Your task to perform on an android device: open app "PlayWell" (install if not already installed) Image 0: 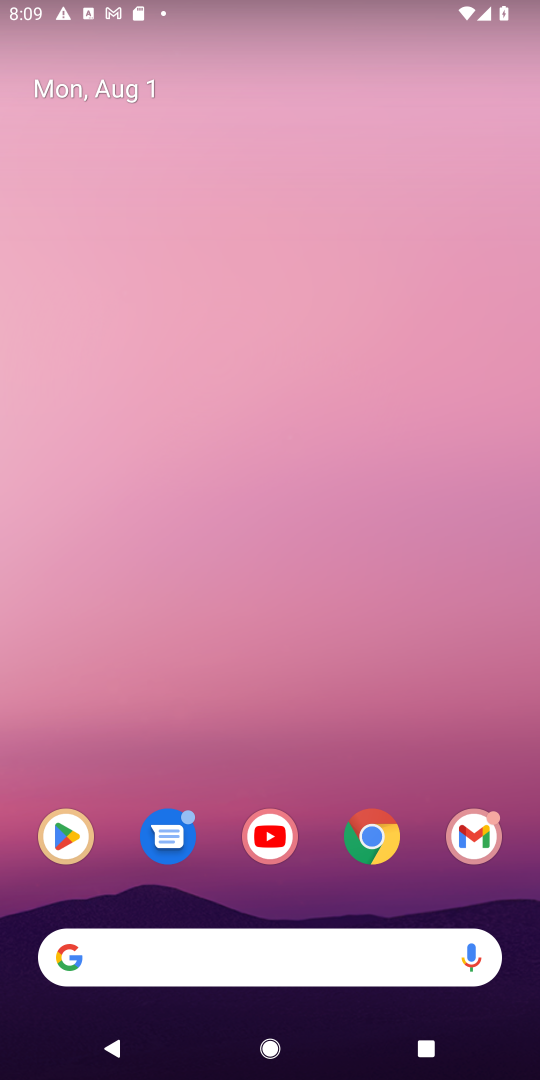
Step 0: press home button
Your task to perform on an android device: open app "PlayWell" (install if not already installed) Image 1: 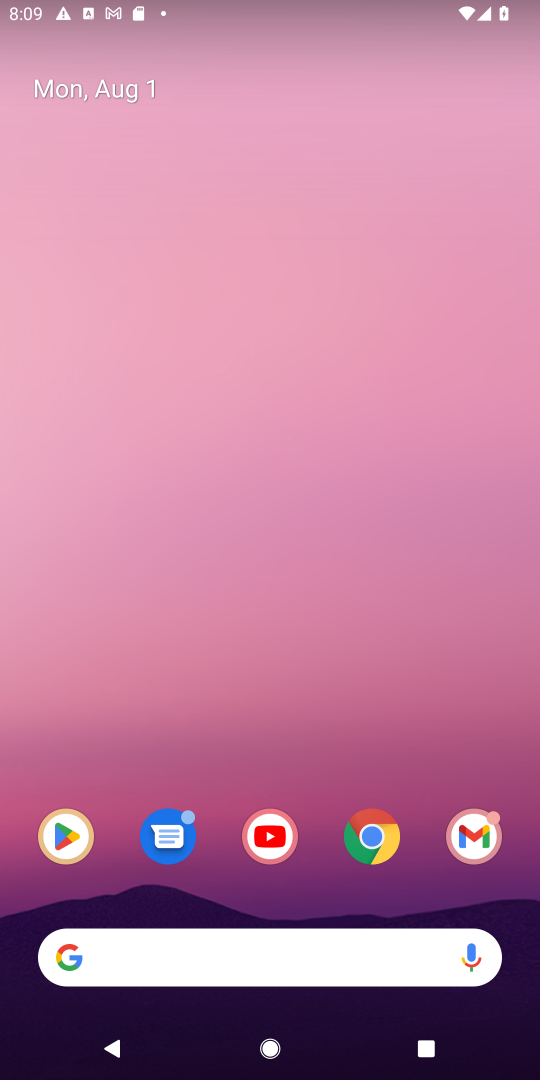
Step 1: click (71, 835)
Your task to perform on an android device: open app "PlayWell" (install if not already installed) Image 2: 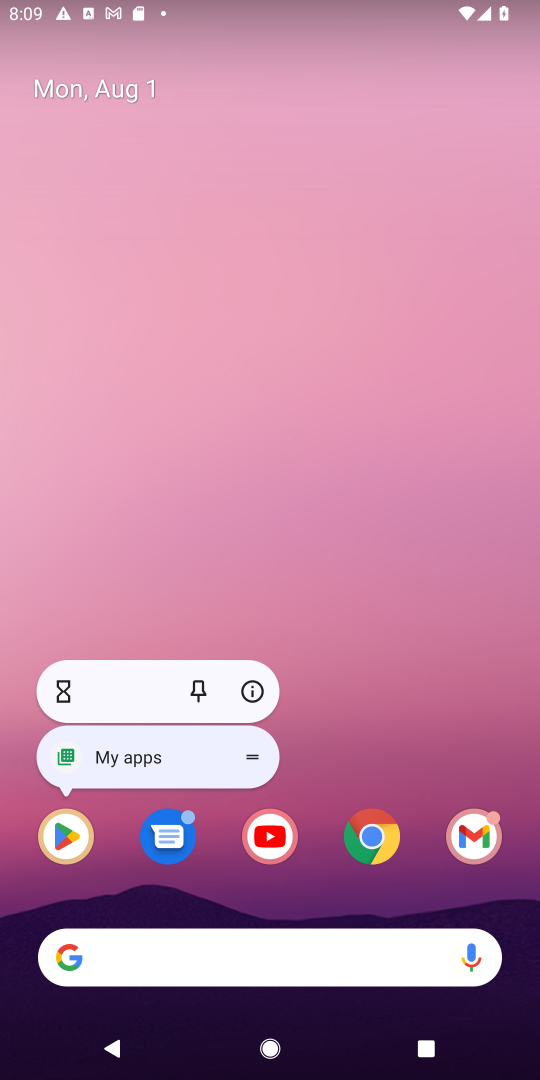
Step 2: click (67, 837)
Your task to perform on an android device: open app "PlayWell" (install if not already installed) Image 3: 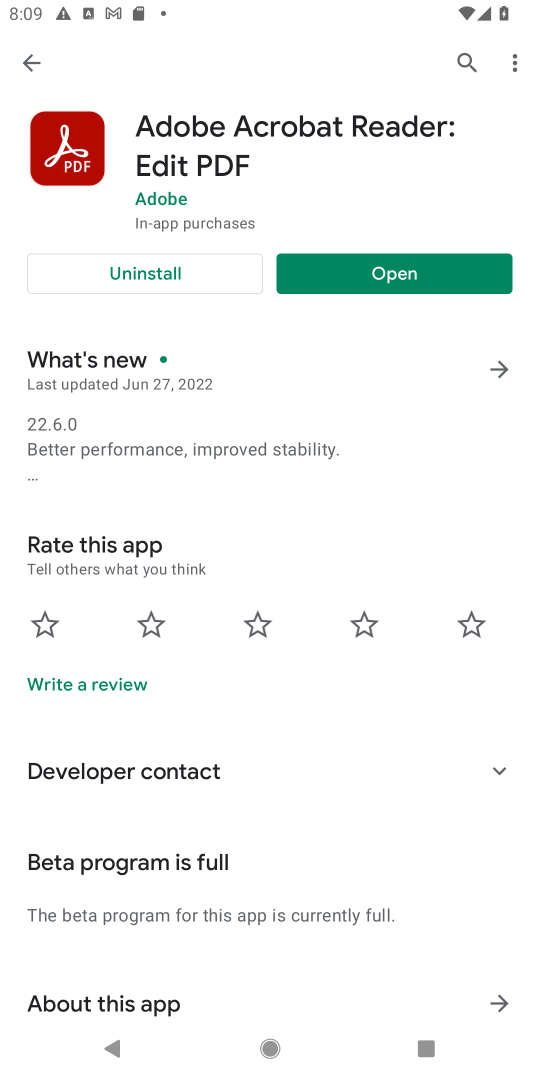
Step 3: click (459, 53)
Your task to perform on an android device: open app "PlayWell" (install if not already installed) Image 4: 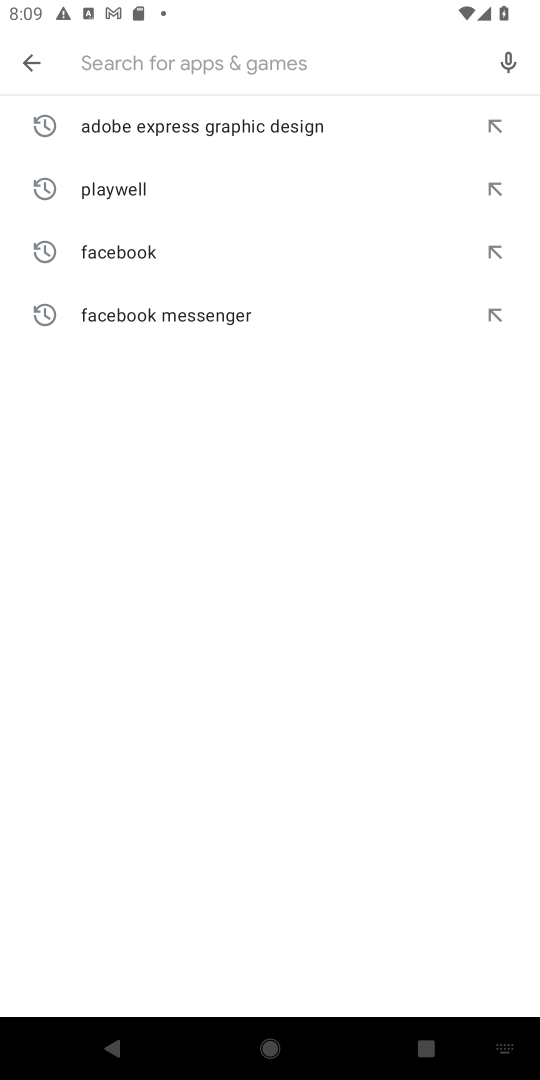
Step 4: type "PlayWell"
Your task to perform on an android device: open app "PlayWell" (install if not already installed) Image 5: 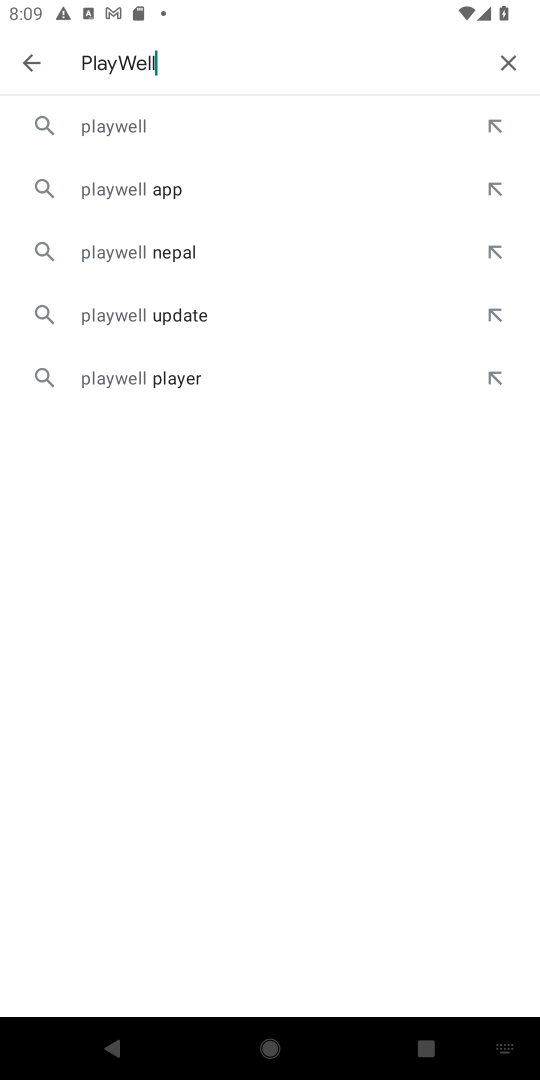
Step 5: click (132, 123)
Your task to perform on an android device: open app "PlayWell" (install if not already installed) Image 6: 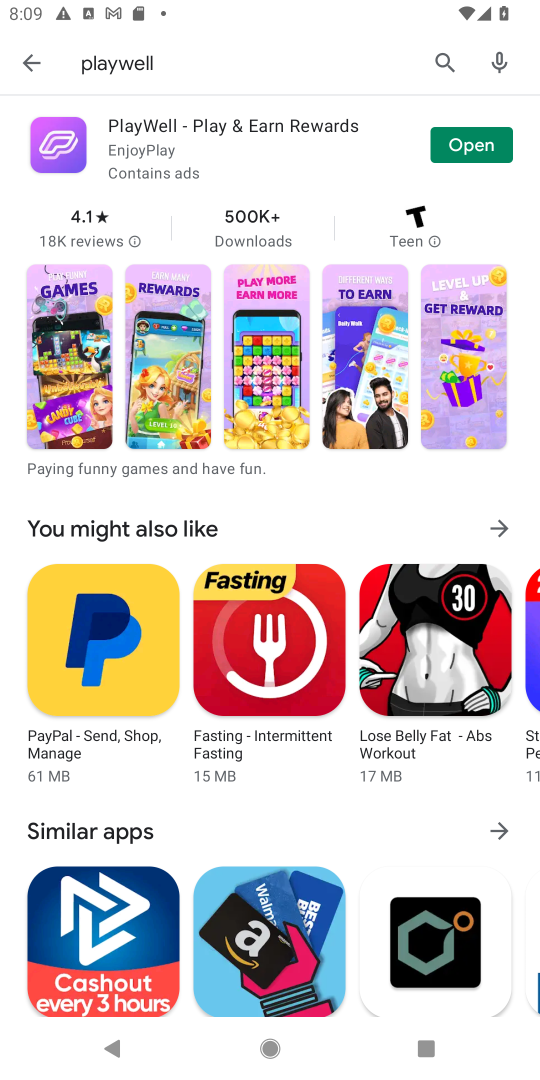
Step 6: click (484, 147)
Your task to perform on an android device: open app "PlayWell" (install if not already installed) Image 7: 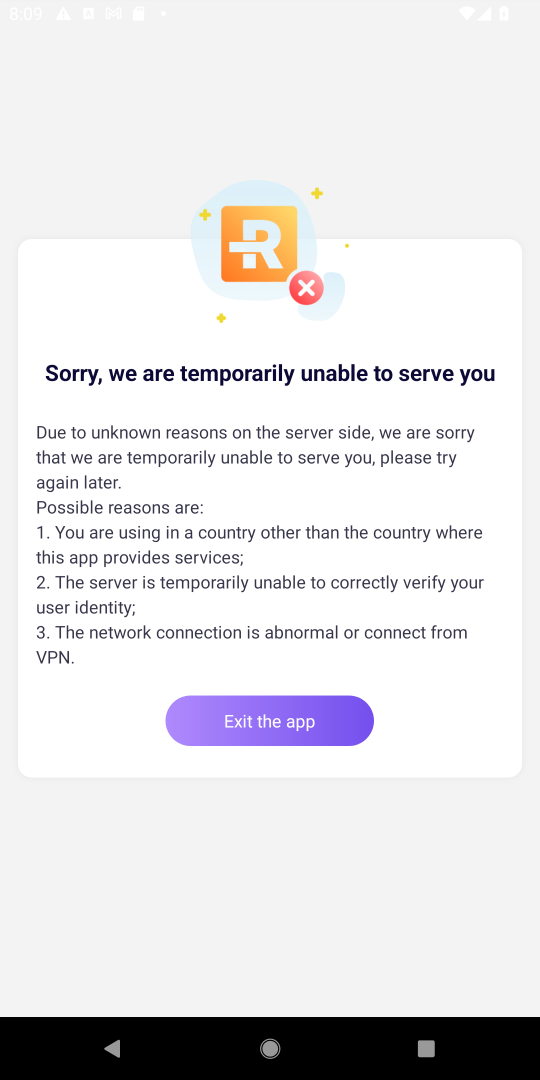
Step 7: task complete